Your task to perform on an android device: Open the phone app and click the voicemail tab. Image 0: 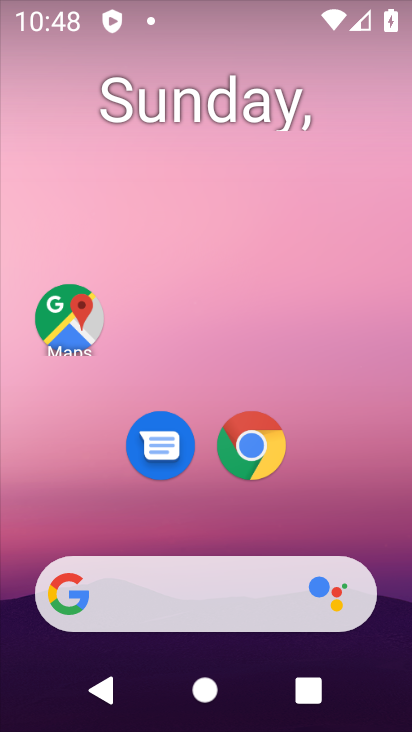
Step 0: drag from (84, 543) to (266, 94)
Your task to perform on an android device: Open the phone app and click the voicemail tab. Image 1: 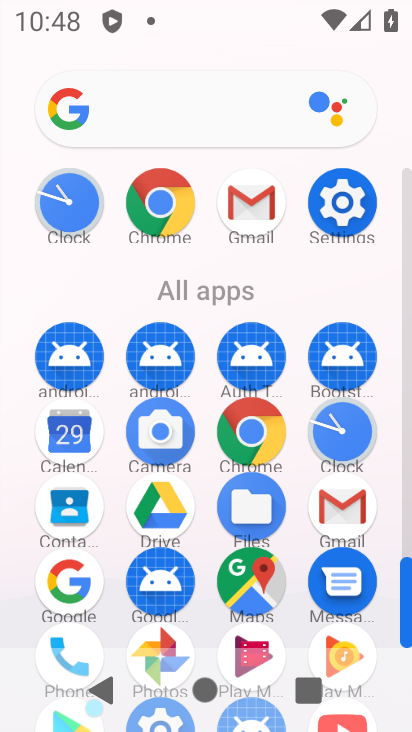
Step 1: click (72, 653)
Your task to perform on an android device: Open the phone app and click the voicemail tab. Image 2: 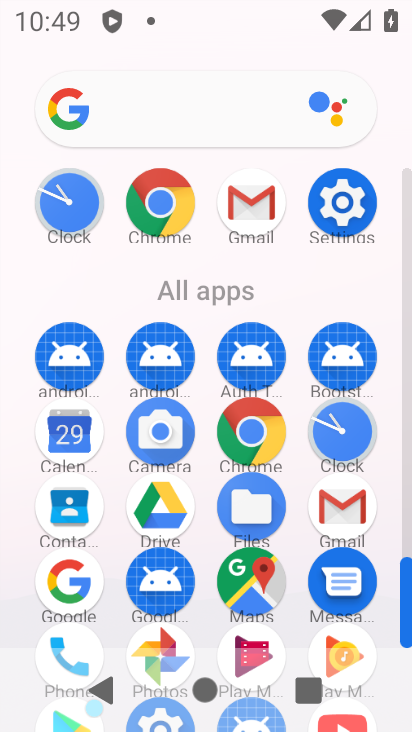
Step 2: click (66, 638)
Your task to perform on an android device: Open the phone app and click the voicemail tab. Image 3: 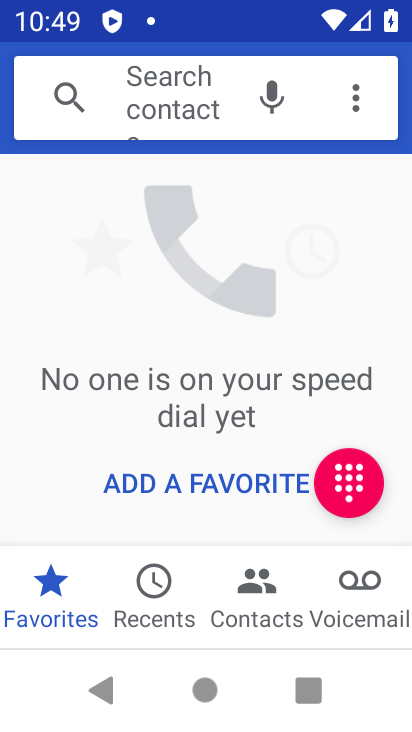
Step 3: click (385, 594)
Your task to perform on an android device: Open the phone app and click the voicemail tab. Image 4: 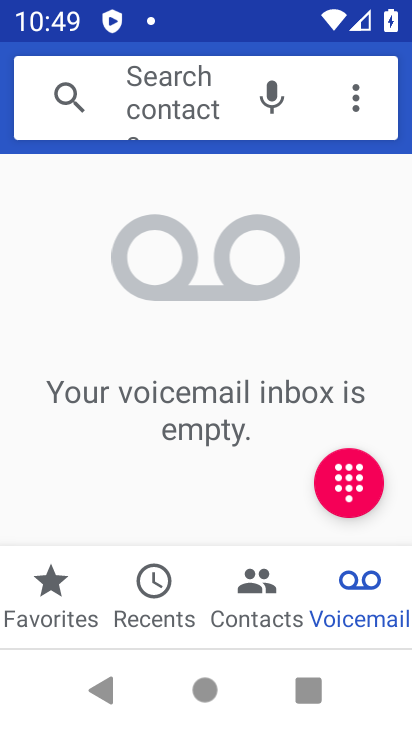
Step 4: task complete